Your task to perform on an android device: turn on translation in the chrome app Image 0: 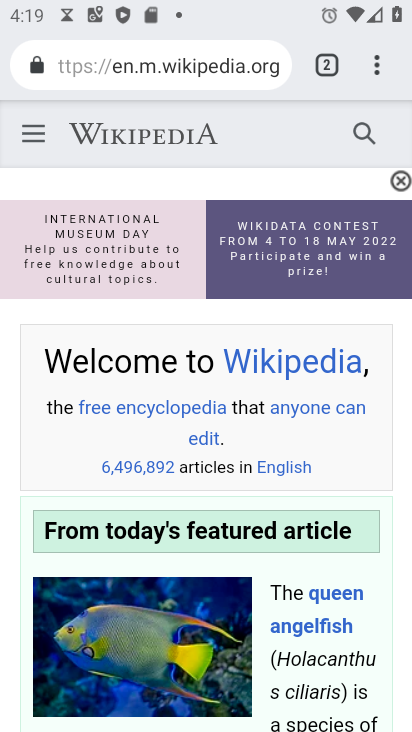
Step 0: click (332, 64)
Your task to perform on an android device: turn on translation in the chrome app Image 1: 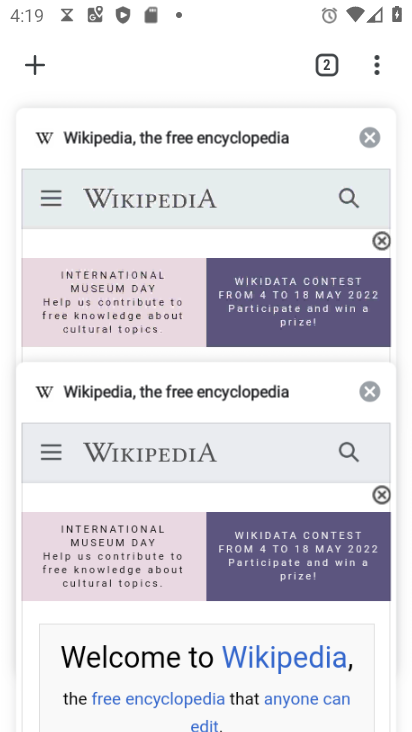
Step 1: click (256, 514)
Your task to perform on an android device: turn on translation in the chrome app Image 2: 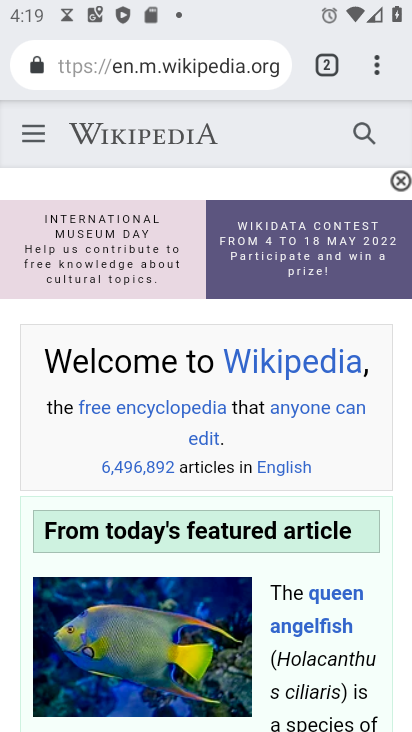
Step 2: click (378, 50)
Your task to perform on an android device: turn on translation in the chrome app Image 3: 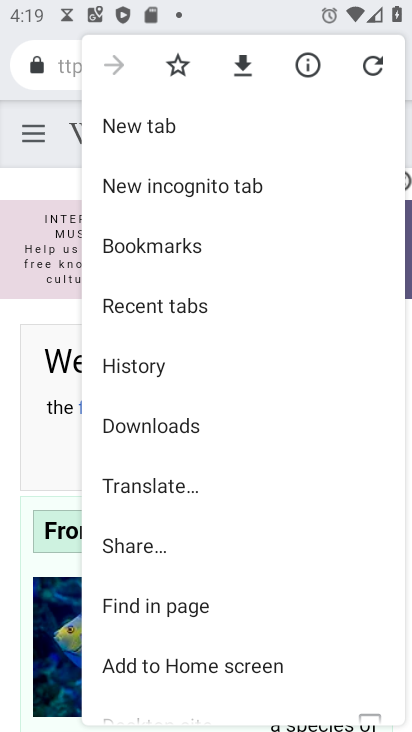
Step 3: click (180, 489)
Your task to perform on an android device: turn on translation in the chrome app Image 4: 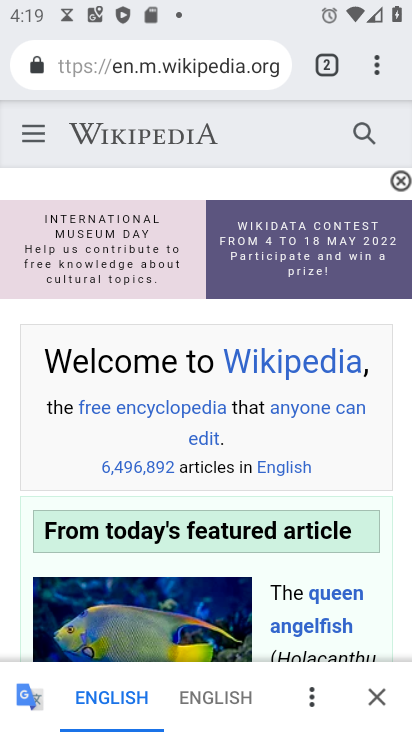
Step 4: click (325, 704)
Your task to perform on an android device: turn on translation in the chrome app Image 5: 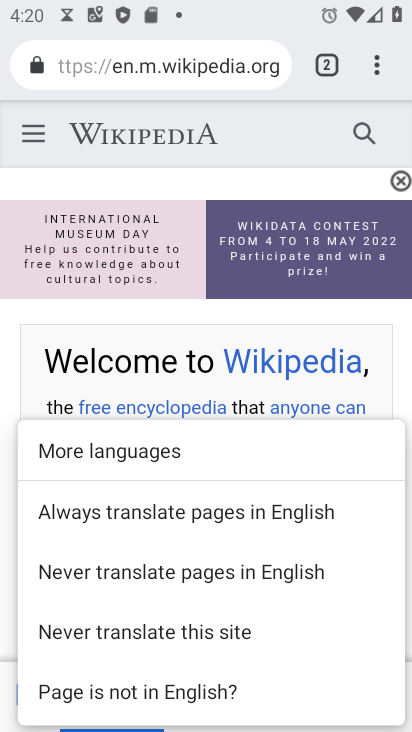
Step 5: click (258, 506)
Your task to perform on an android device: turn on translation in the chrome app Image 6: 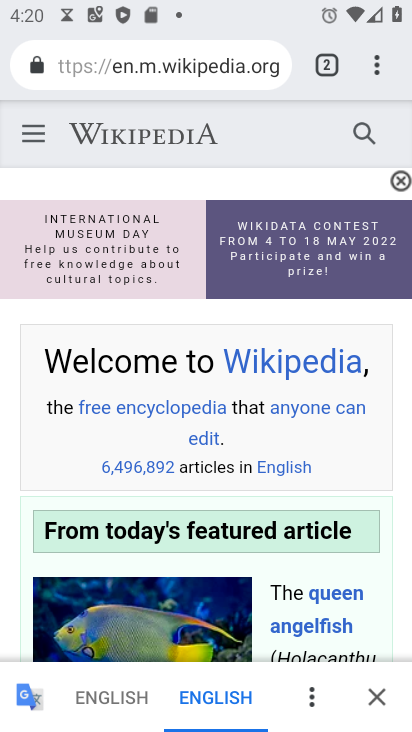
Step 6: task complete